Your task to perform on an android device: read, delete, or share a saved page in the chrome app Image 0: 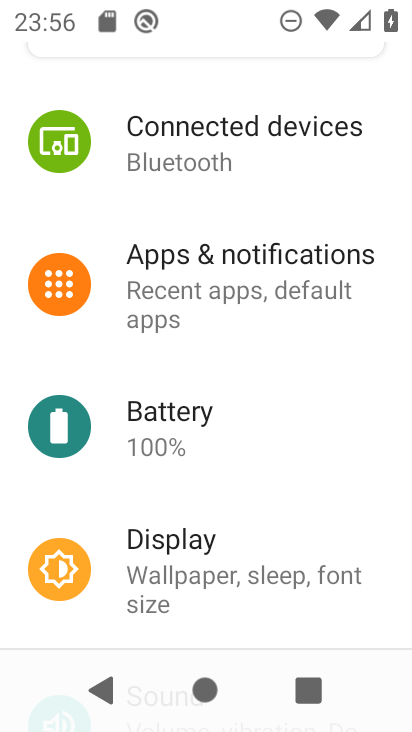
Step 0: press home button
Your task to perform on an android device: read, delete, or share a saved page in the chrome app Image 1: 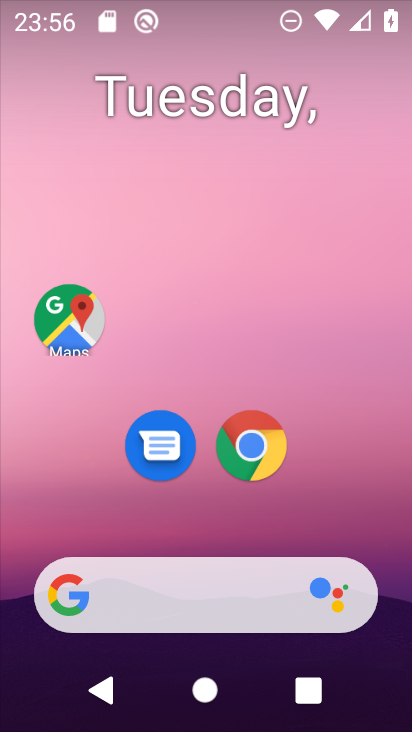
Step 1: click (254, 454)
Your task to perform on an android device: read, delete, or share a saved page in the chrome app Image 2: 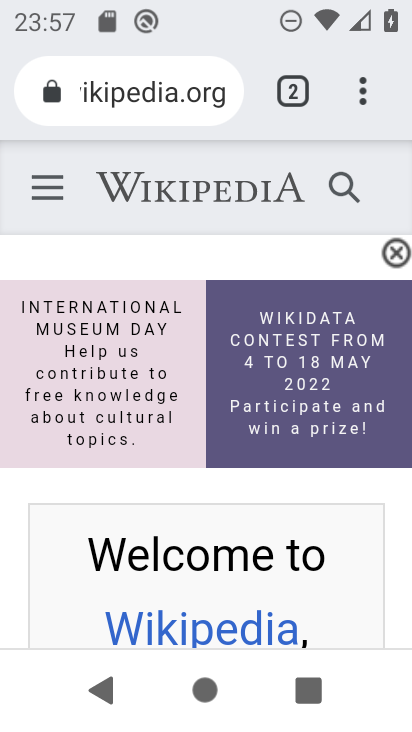
Step 2: click (351, 95)
Your task to perform on an android device: read, delete, or share a saved page in the chrome app Image 3: 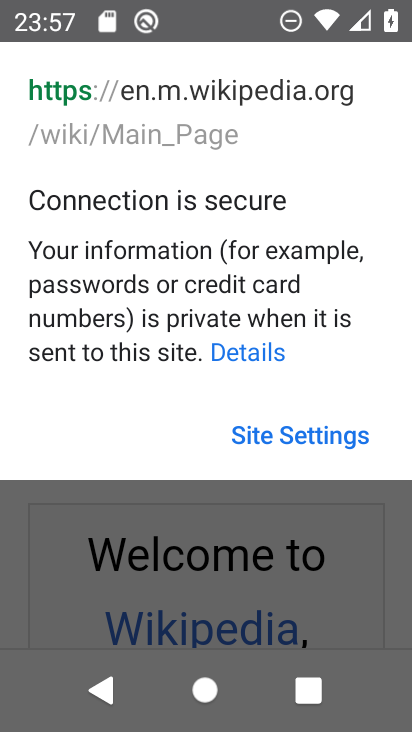
Step 3: click (327, 542)
Your task to perform on an android device: read, delete, or share a saved page in the chrome app Image 4: 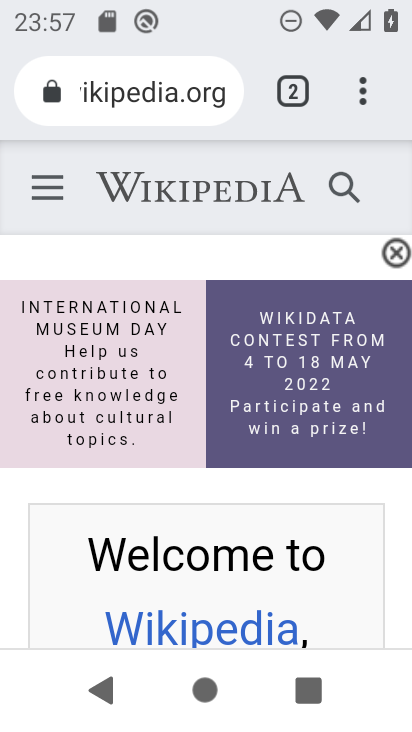
Step 4: click (367, 104)
Your task to perform on an android device: read, delete, or share a saved page in the chrome app Image 5: 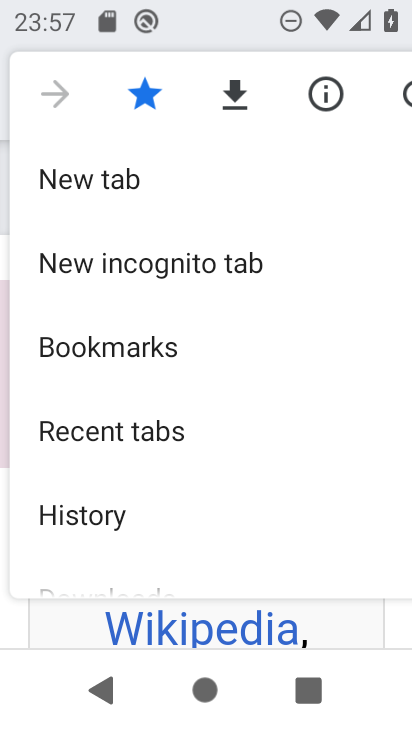
Step 5: drag from (132, 518) to (195, 178)
Your task to perform on an android device: read, delete, or share a saved page in the chrome app Image 6: 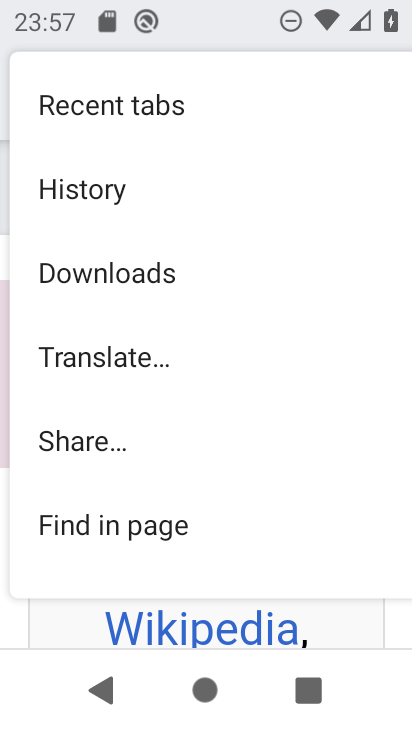
Step 6: click (163, 297)
Your task to perform on an android device: read, delete, or share a saved page in the chrome app Image 7: 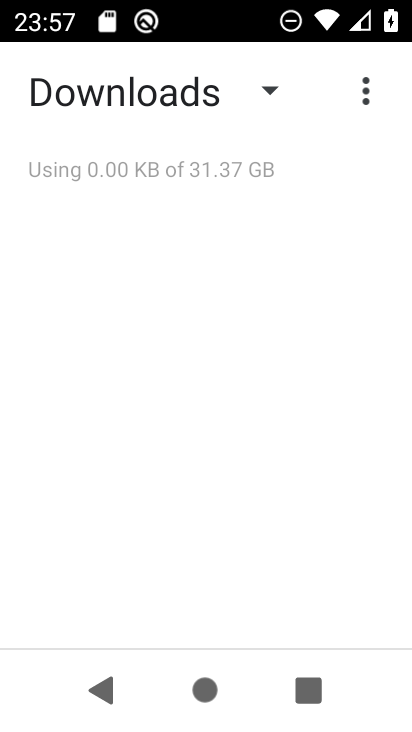
Step 7: click (263, 99)
Your task to perform on an android device: read, delete, or share a saved page in the chrome app Image 8: 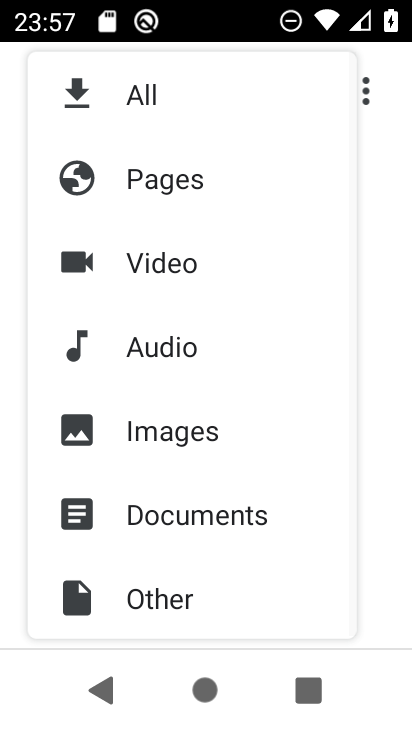
Step 8: click (143, 192)
Your task to perform on an android device: read, delete, or share a saved page in the chrome app Image 9: 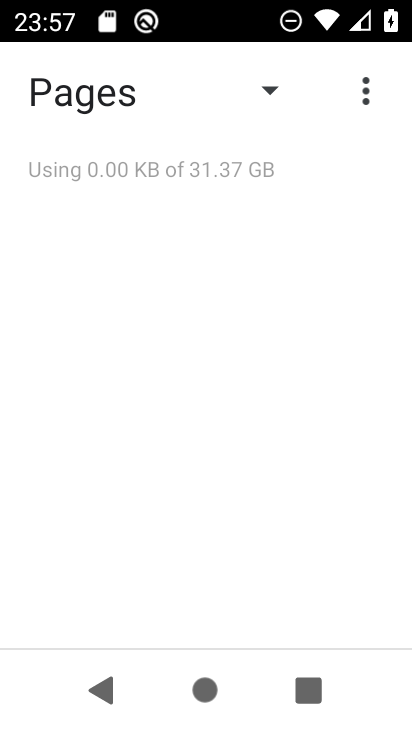
Step 9: task complete